Your task to perform on an android device: see tabs open on other devices in the chrome app Image 0: 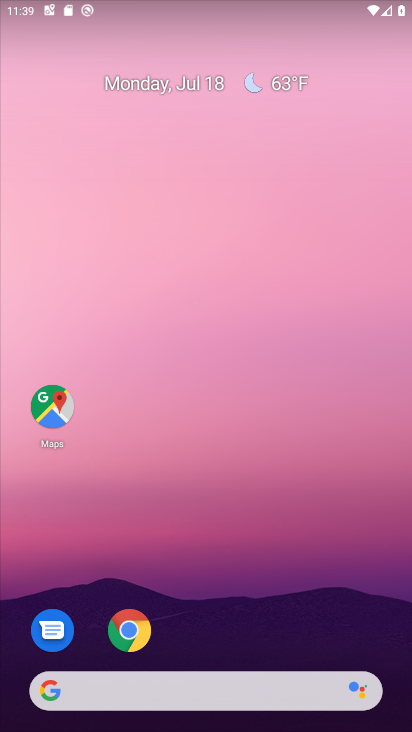
Step 0: click (126, 634)
Your task to perform on an android device: see tabs open on other devices in the chrome app Image 1: 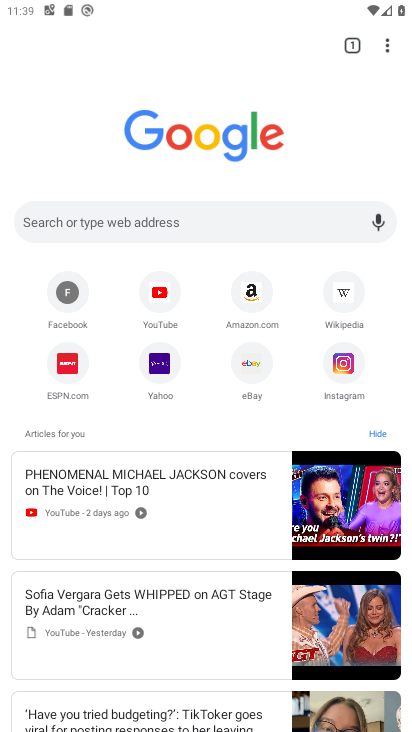
Step 1: click (382, 48)
Your task to perform on an android device: see tabs open on other devices in the chrome app Image 2: 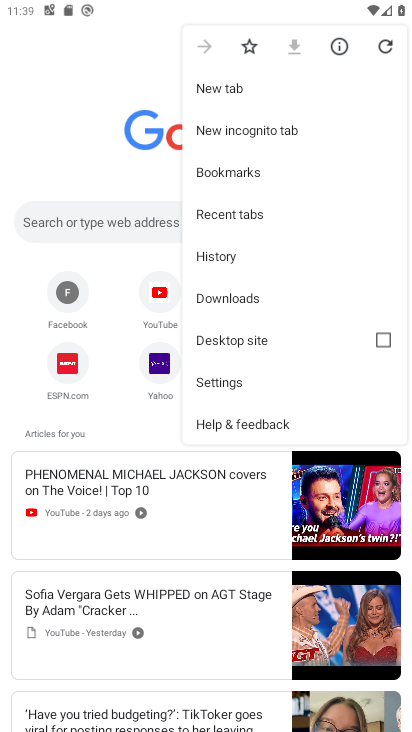
Step 2: click (143, 80)
Your task to perform on an android device: see tabs open on other devices in the chrome app Image 3: 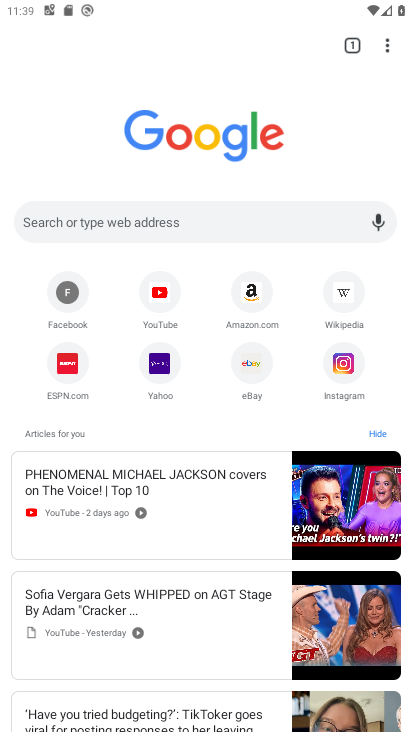
Step 3: click (383, 51)
Your task to perform on an android device: see tabs open on other devices in the chrome app Image 4: 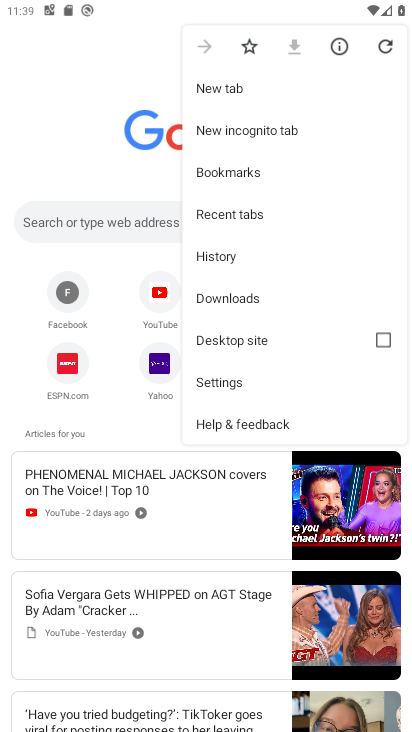
Step 4: click (261, 214)
Your task to perform on an android device: see tabs open on other devices in the chrome app Image 5: 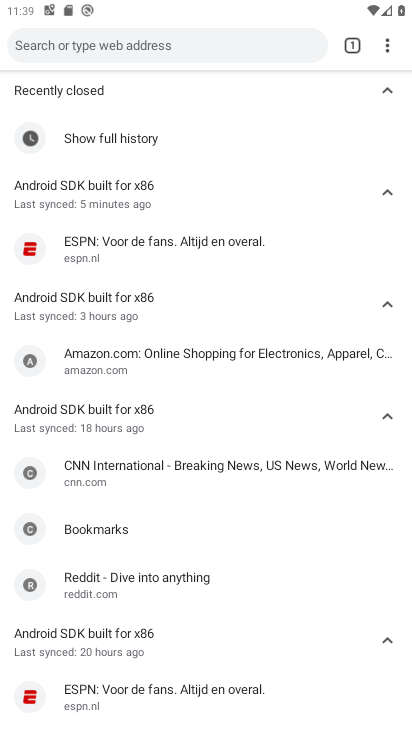
Step 5: task complete